Your task to perform on an android device: turn on sleep mode Image 0: 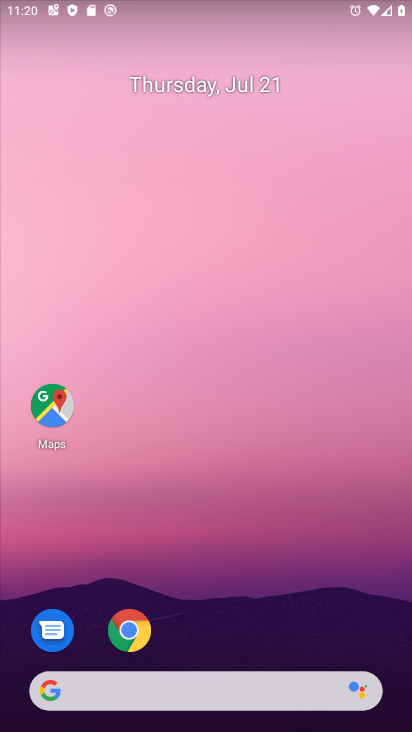
Step 0: drag from (217, 652) to (212, 104)
Your task to perform on an android device: turn on sleep mode Image 1: 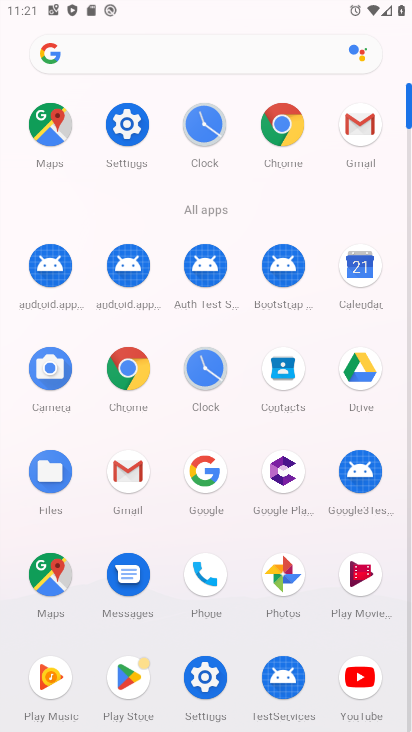
Step 1: click (201, 680)
Your task to perform on an android device: turn on sleep mode Image 2: 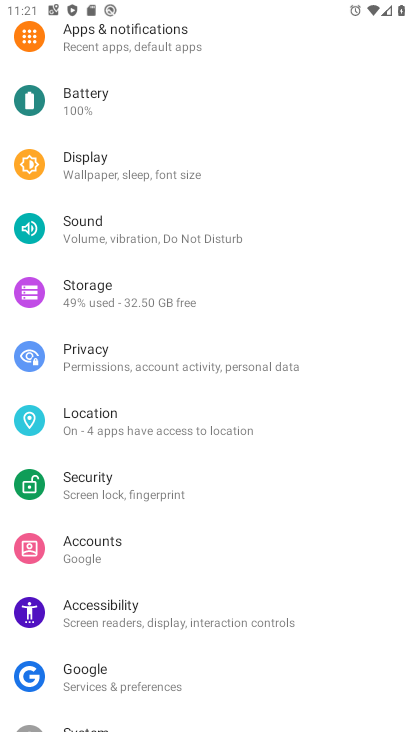
Step 2: drag from (244, 510) to (238, 181)
Your task to perform on an android device: turn on sleep mode Image 3: 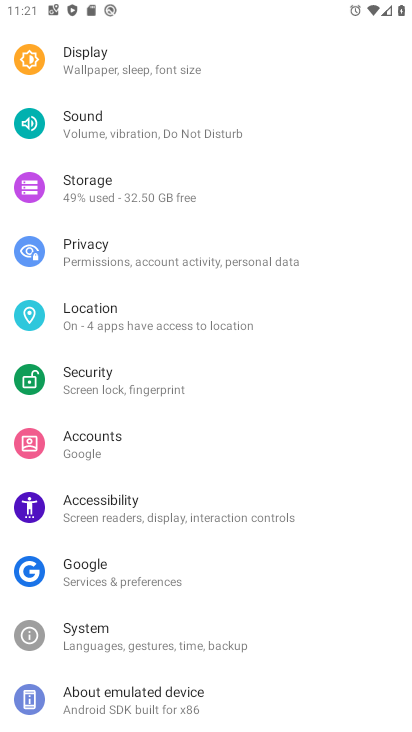
Step 3: click (78, 54)
Your task to perform on an android device: turn on sleep mode Image 4: 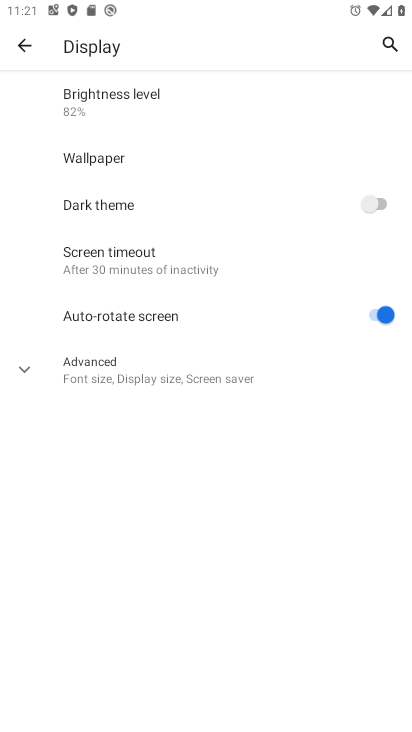
Step 4: task complete